Your task to perform on an android device: Open battery settings Image 0: 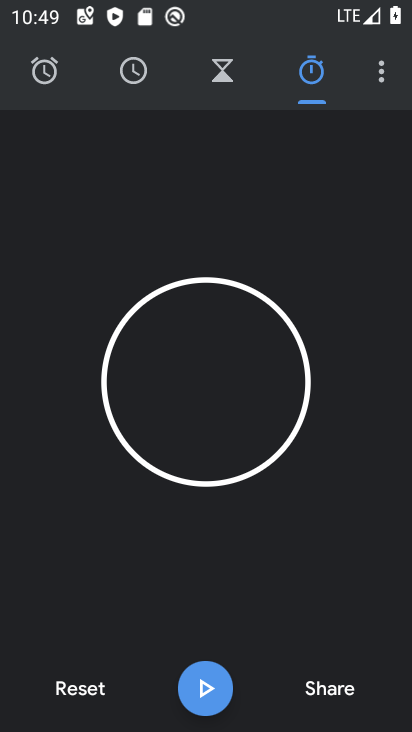
Step 0: press home button
Your task to perform on an android device: Open battery settings Image 1: 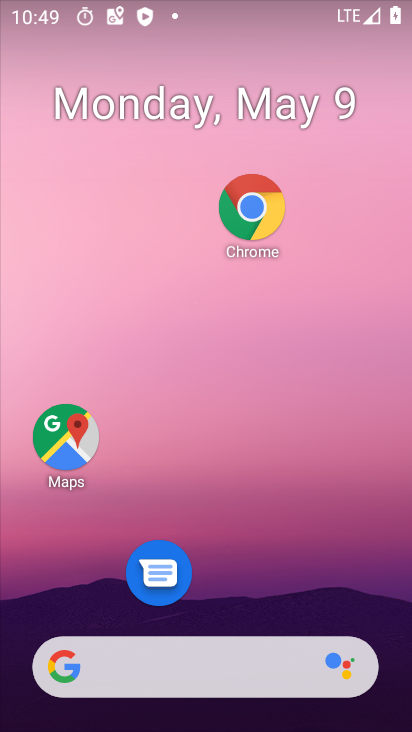
Step 1: drag from (213, 599) to (221, 223)
Your task to perform on an android device: Open battery settings Image 2: 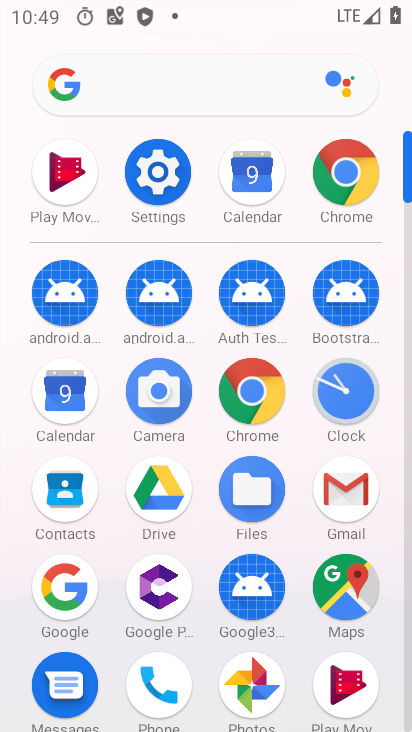
Step 2: click (171, 208)
Your task to perform on an android device: Open battery settings Image 3: 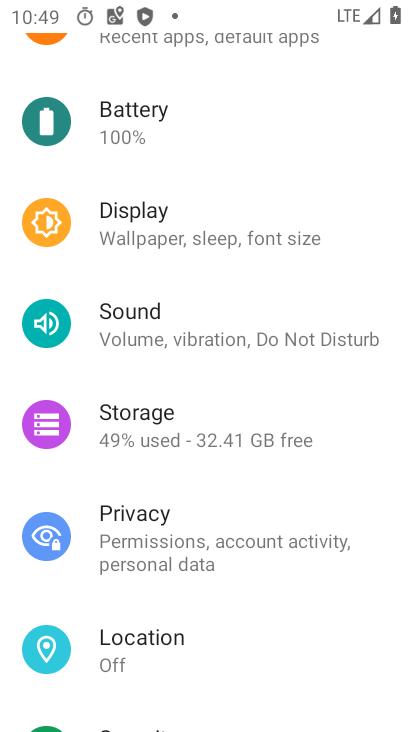
Step 3: click (170, 132)
Your task to perform on an android device: Open battery settings Image 4: 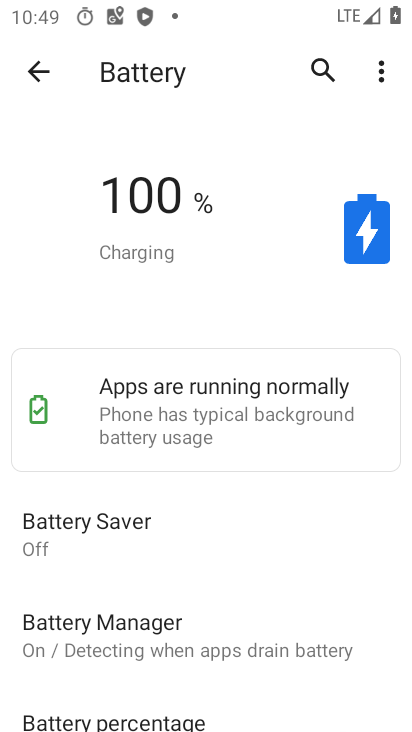
Step 4: task complete